Your task to perform on an android device: Search for "macbook pro 13 inch" on target.com, select the first entry, and add it to the cart. Image 0: 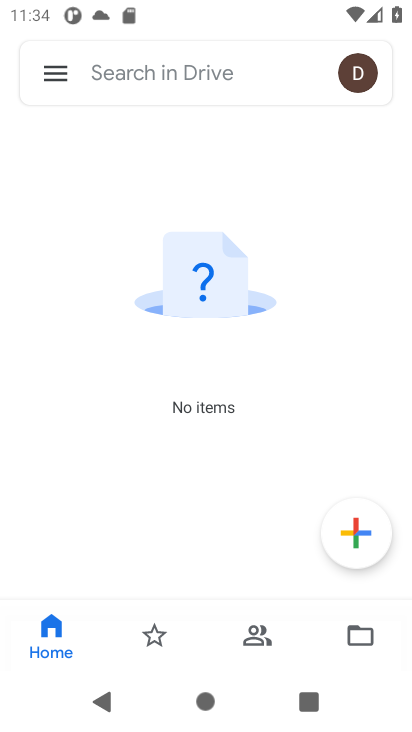
Step 0: press home button
Your task to perform on an android device: Search for "macbook pro 13 inch" on target.com, select the first entry, and add it to the cart. Image 1: 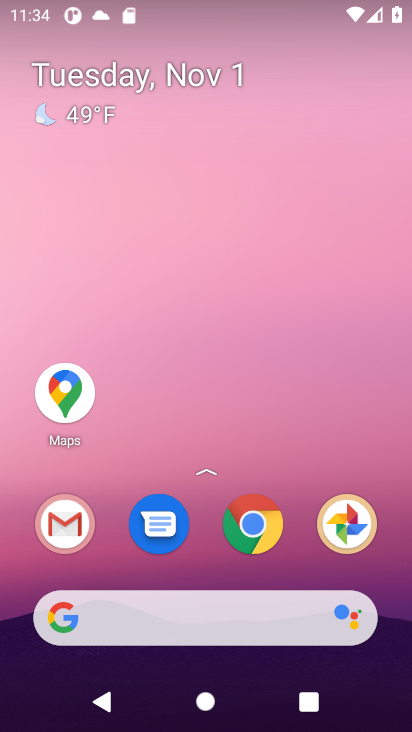
Step 1: click (89, 611)
Your task to perform on an android device: Search for "macbook pro 13 inch" on target.com, select the first entry, and add it to the cart. Image 2: 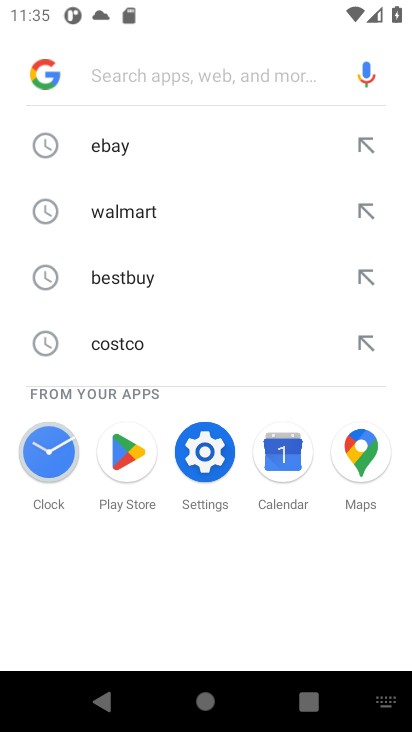
Step 2: press enter
Your task to perform on an android device: Search for "macbook pro 13 inch" on target.com, select the first entry, and add it to the cart. Image 3: 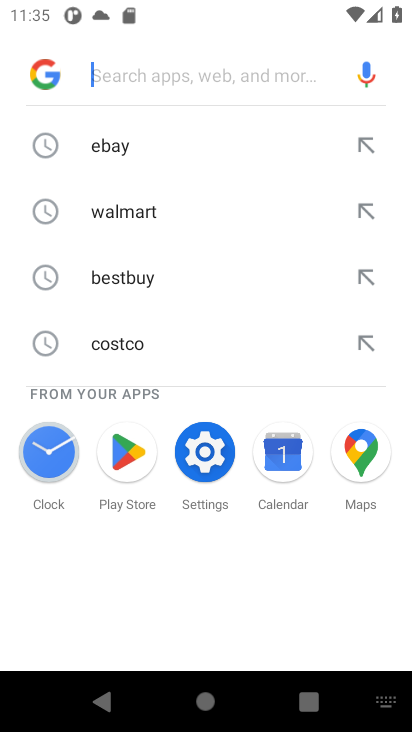
Step 3: type "target.com"
Your task to perform on an android device: Search for "macbook pro 13 inch" on target.com, select the first entry, and add it to the cart. Image 4: 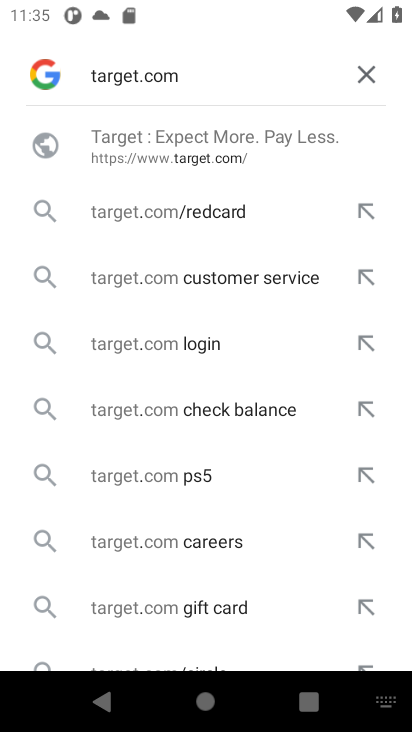
Step 4: press enter
Your task to perform on an android device: Search for "macbook pro 13 inch" on target.com, select the first entry, and add it to the cart. Image 5: 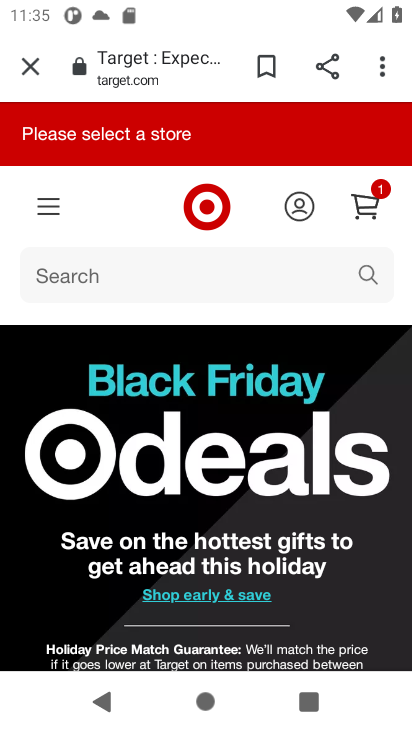
Step 5: click (90, 272)
Your task to perform on an android device: Search for "macbook pro 13 inch" on target.com, select the first entry, and add it to the cart. Image 6: 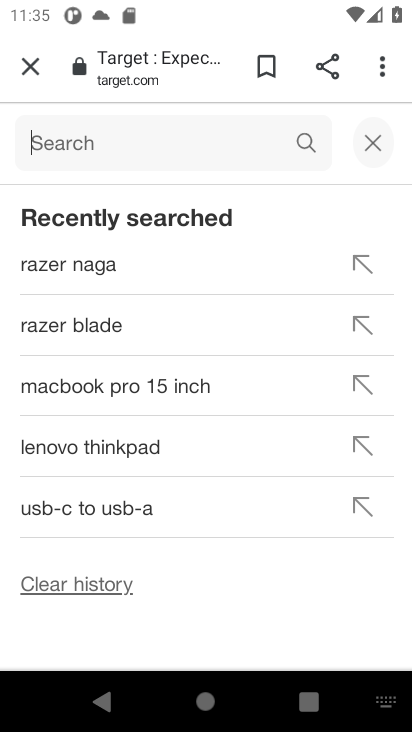
Step 6: type "macbook pro 13 inch"
Your task to perform on an android device: Search for "macbook pro 13 inch" on target.com, select the first entry, and add it to the cart. Image 7: 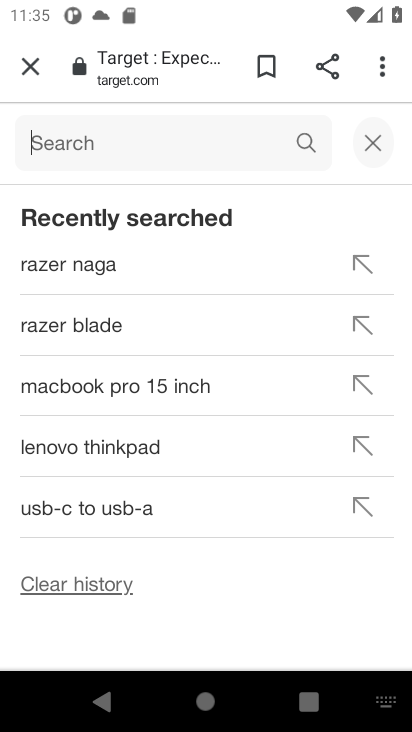
Step 7: press enter
Your task to perform on an android device: Search for "macbook pro 13 inch" on target.com, select the first entry, and add it to the cart. Image 8: 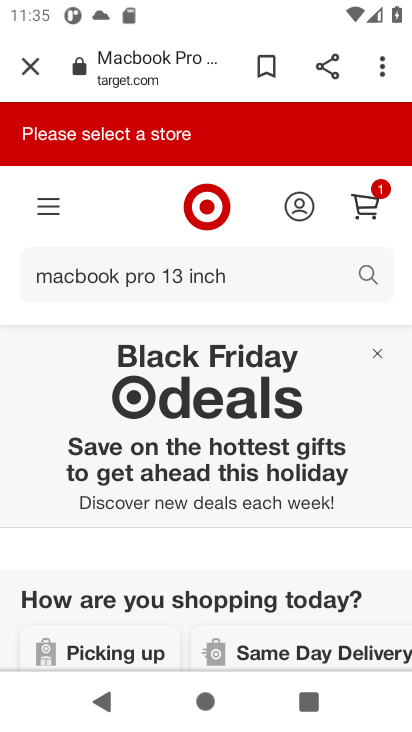
Step 8: task complete